Your task to perform on an android device: turn vacation reply on in the gmail app Image 0: 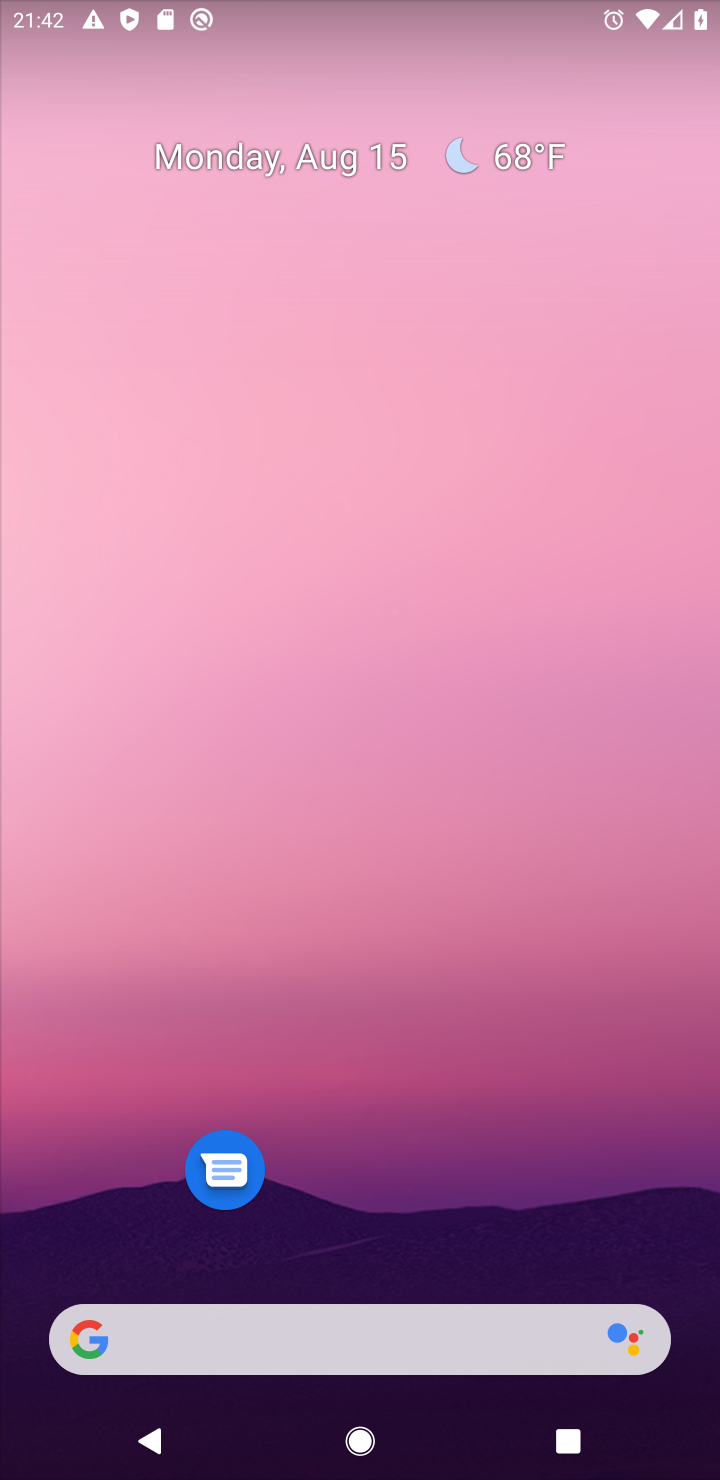
Step 0: drag from (379, 1238) to (437, 158)
Your task to perform on an android device: turn vacation reply on in the gmail app Image 1: 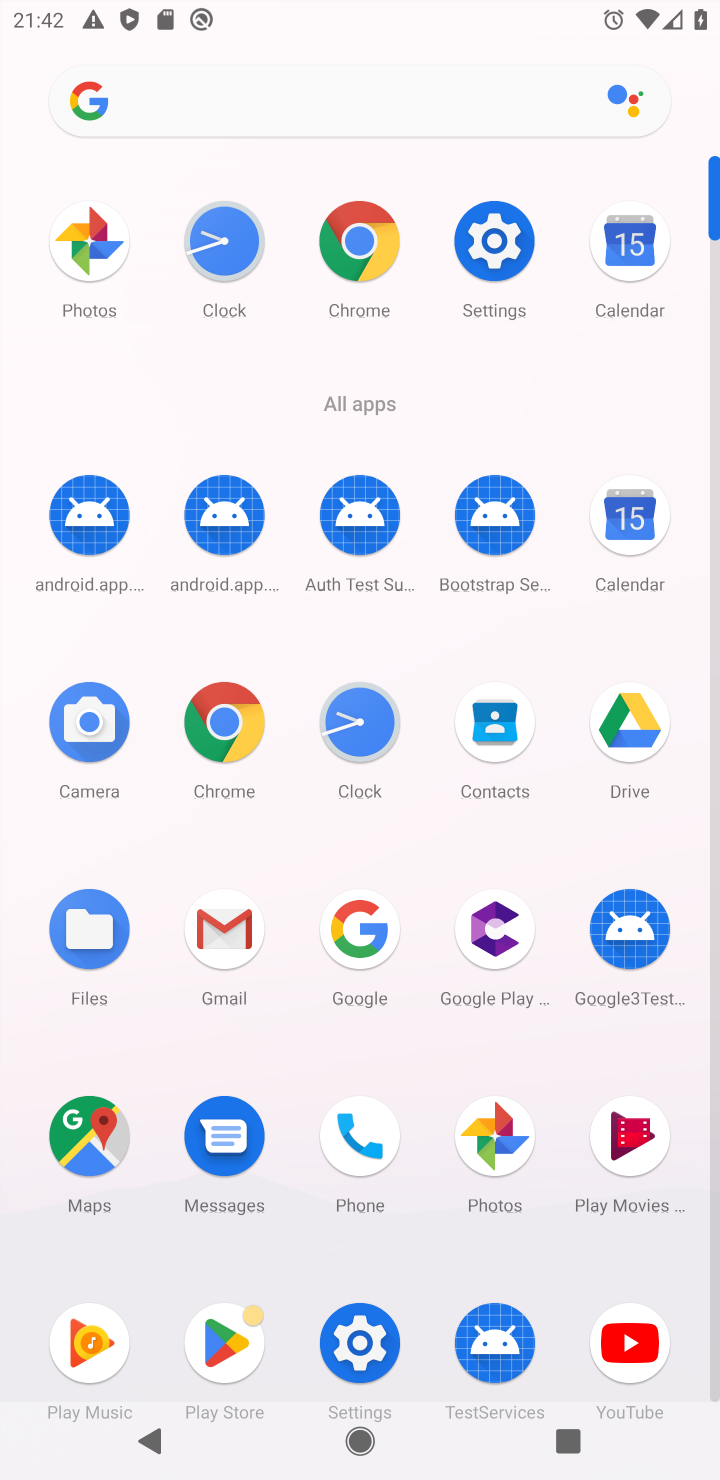
Step 1: click (234, 947)
Your task to perform on an android device: turn vacation reply on in the gmail app Image 2: 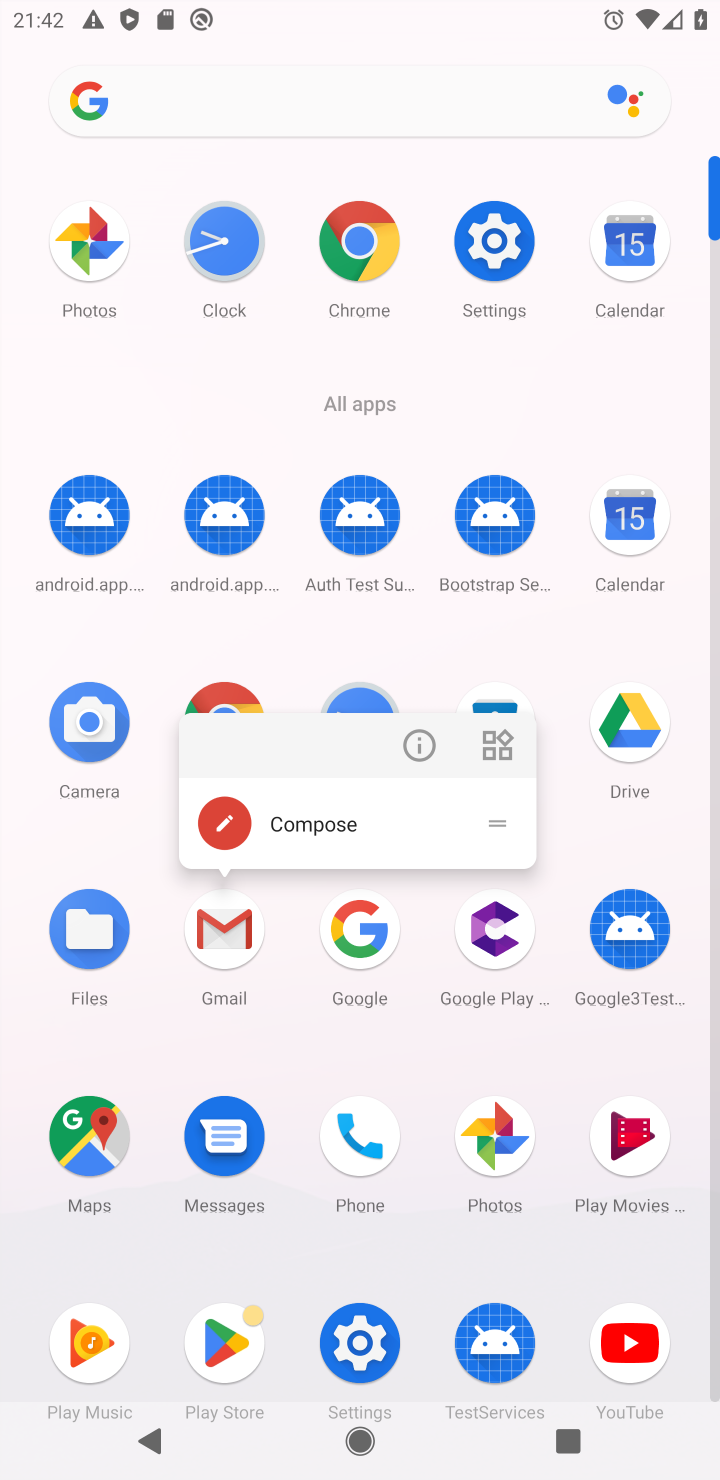
Step 2: click (220, 928)
Your task to perform on an android device: turn vacation reply on in the gmail app Image 3: 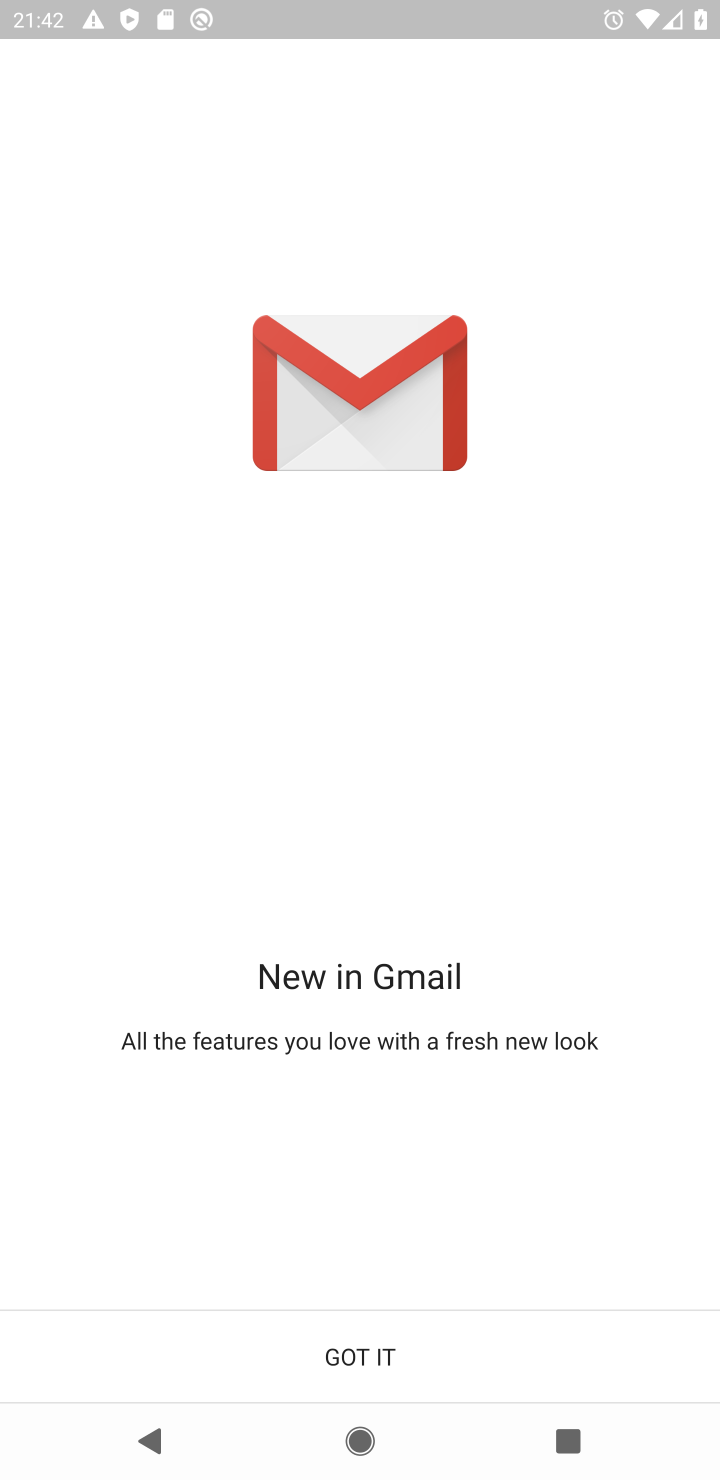
Step 3: click (375, 1362)
Your task to perform on an android device: turn vacation reply on in the gmail app Image 4: 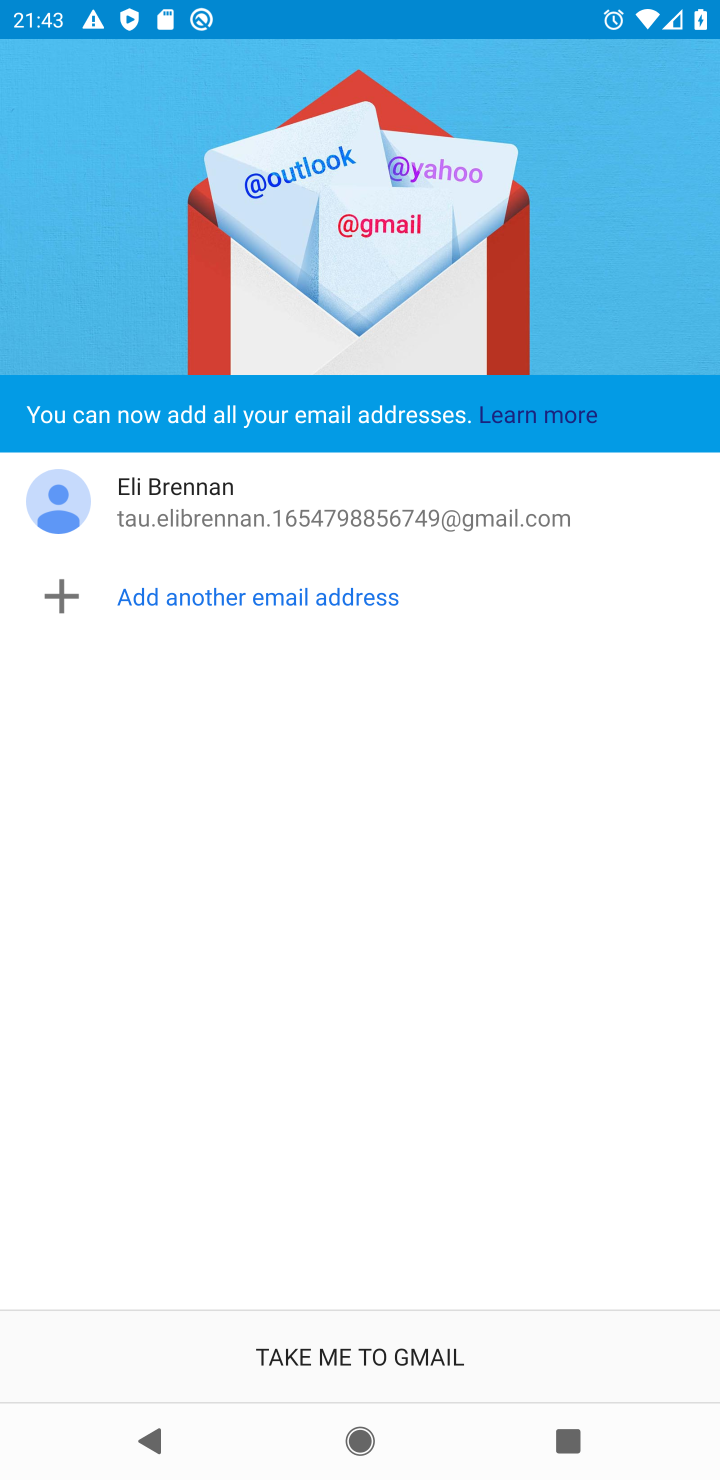
Step 4: click (375, 1360)
Your task to perform on an android device: turn vacation reply on in the gmail app Image 5: 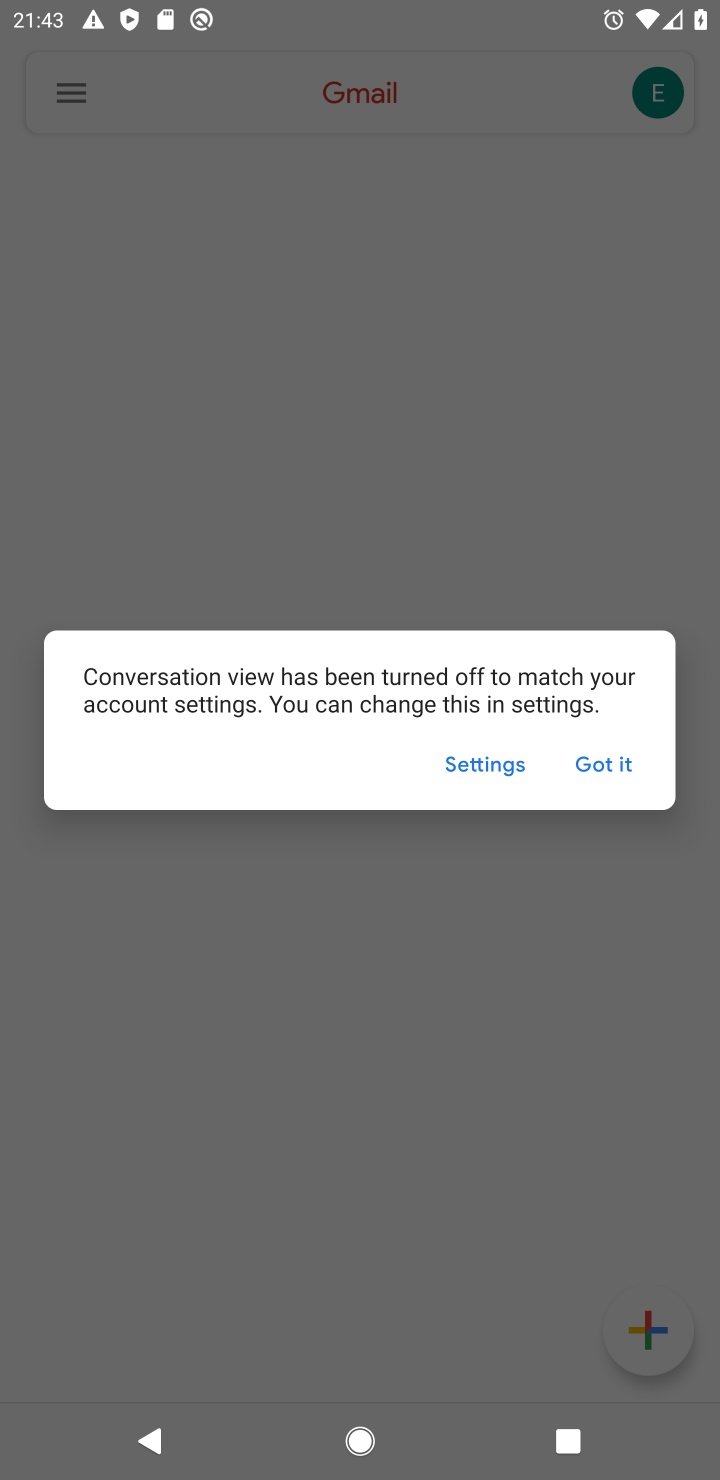
Step 5: click (626, 766)
Your task to perform on an android device: turn vacation reply on in the gmail app Image 6: 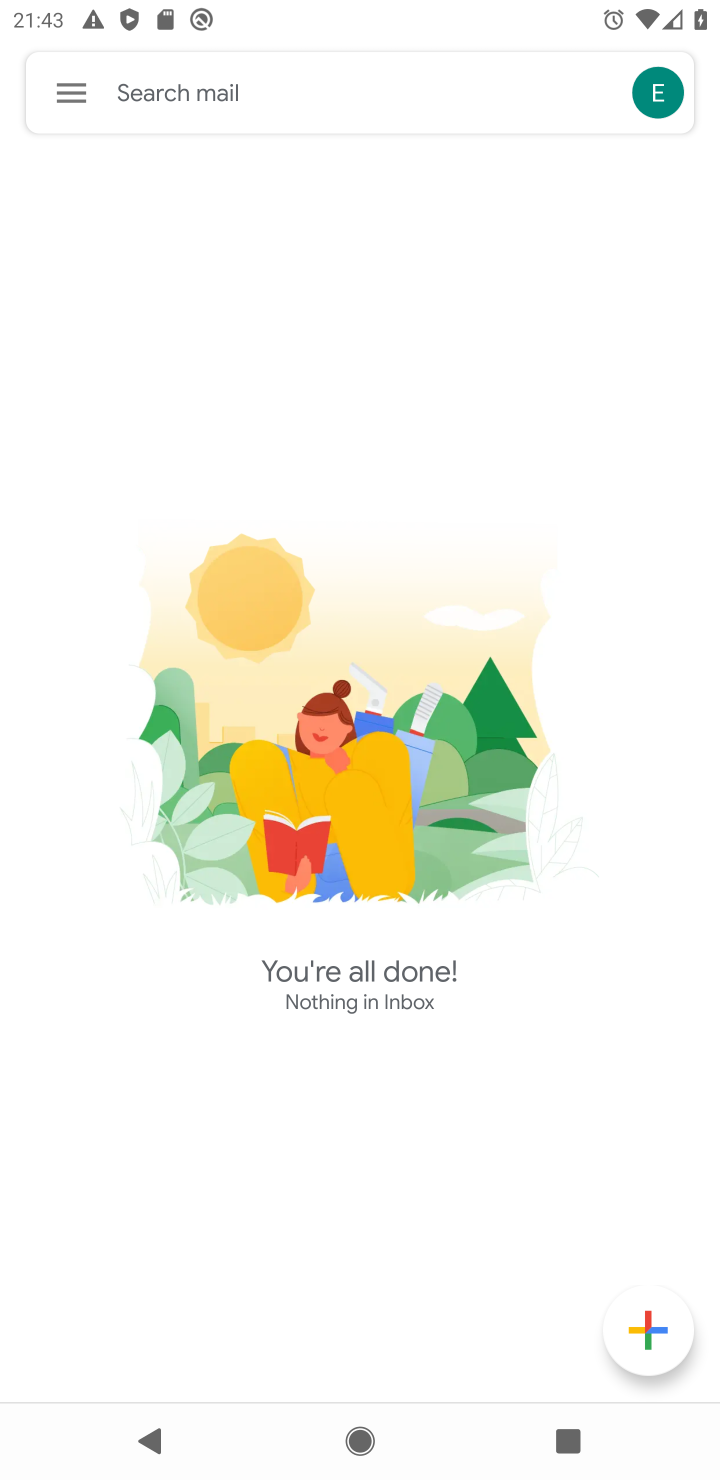
Step 6: click (64, 109)
Your task to perform on an android device: turn vacation reply on in the gmail app Image 7: 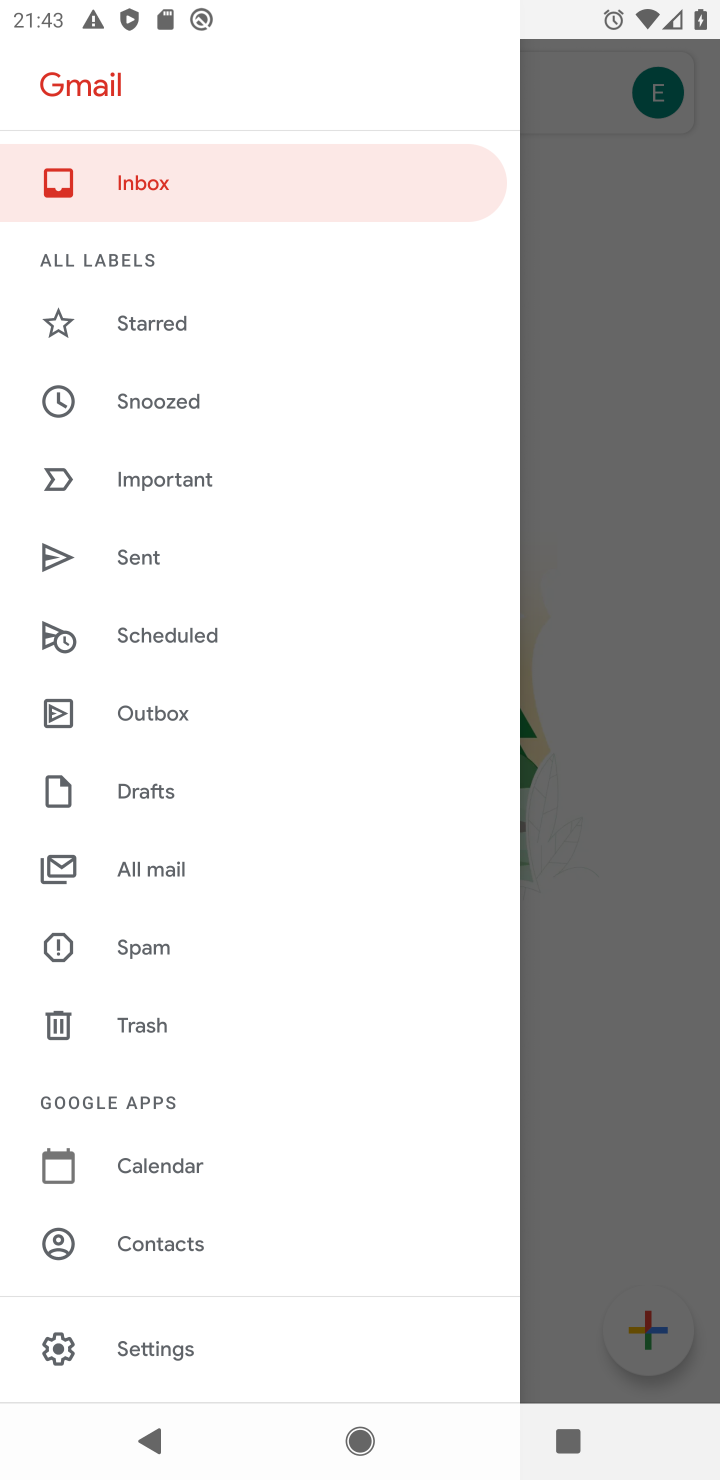
Step 7: drag from (232, 1346) to (395, 362)
Your task to perform on an android device: turn vacation reply on in the gmail app Image 8: 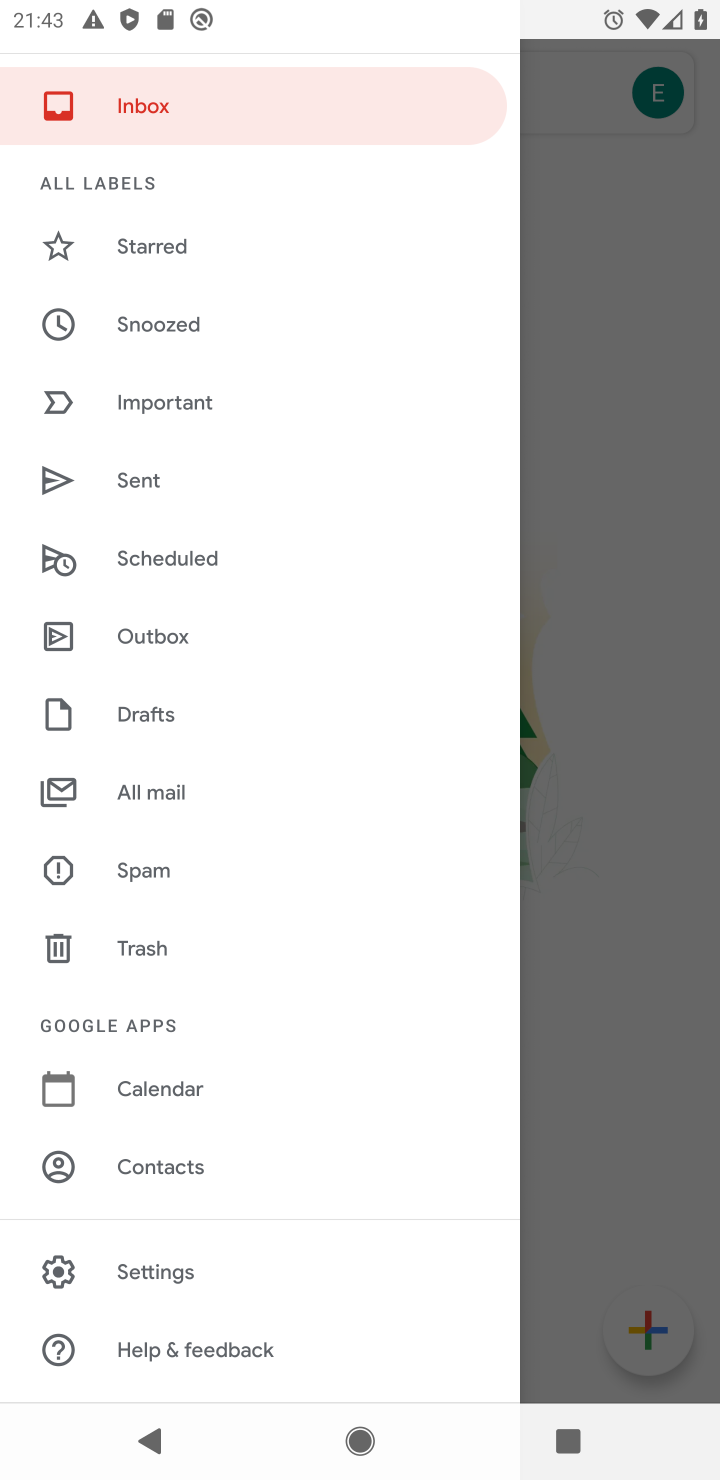
Step 8: click (146, 1276)
Your task to perform on an android device: turn vacation reply on in the gmail app Image 9: 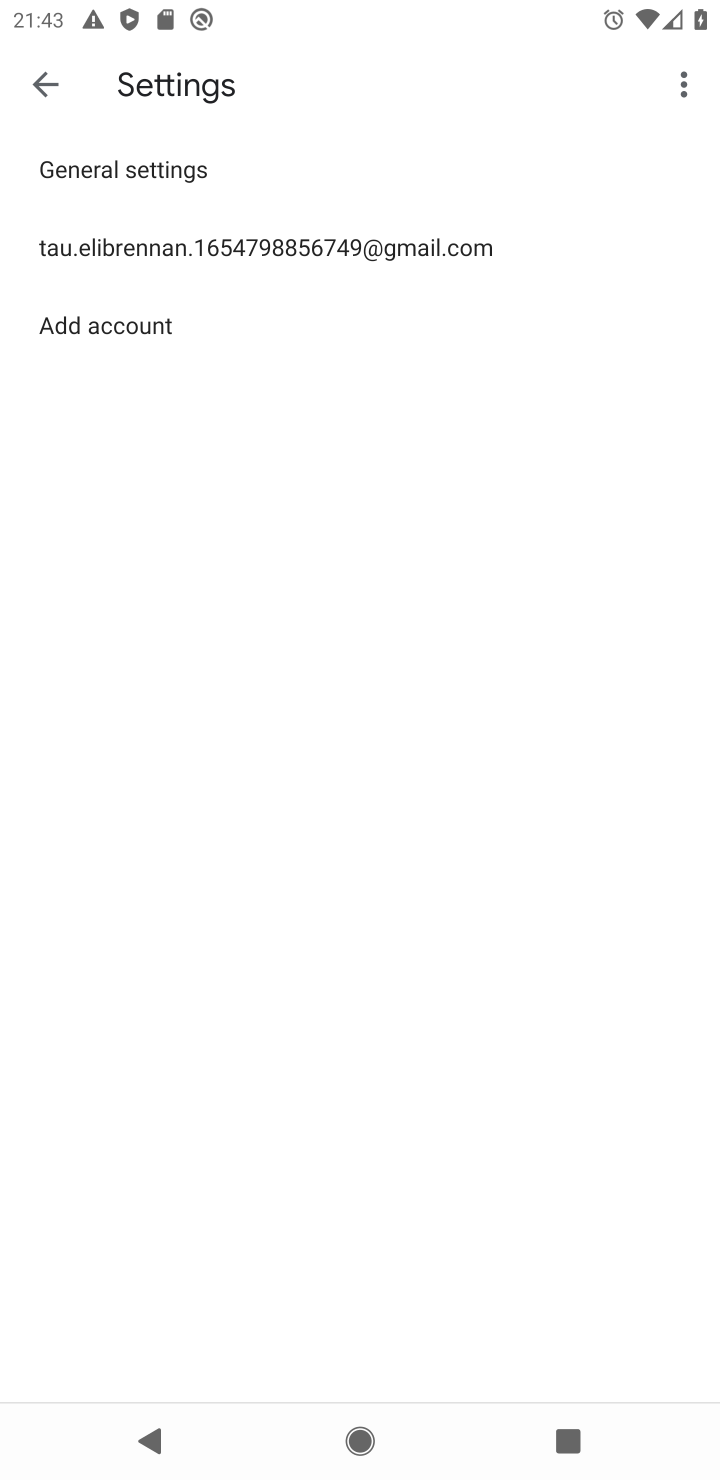
Step 9: click (173, 235)
Your task to perform on an android device: turn vacation reply on in the gmail app Image 10: 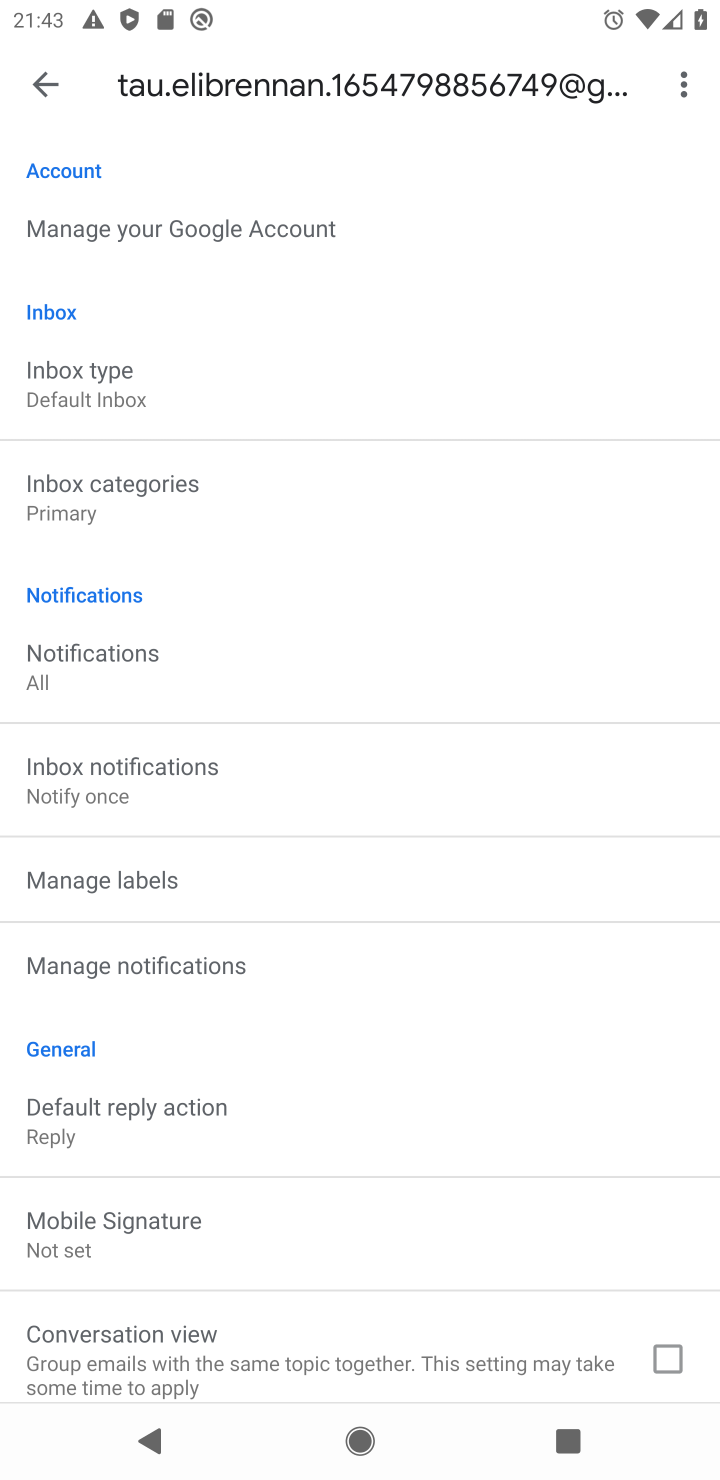
Step 10: drag from (215, 1290) to (386, 190)
Your task to perform on an android device: turn vacation reply on in the gmail app Image 11: 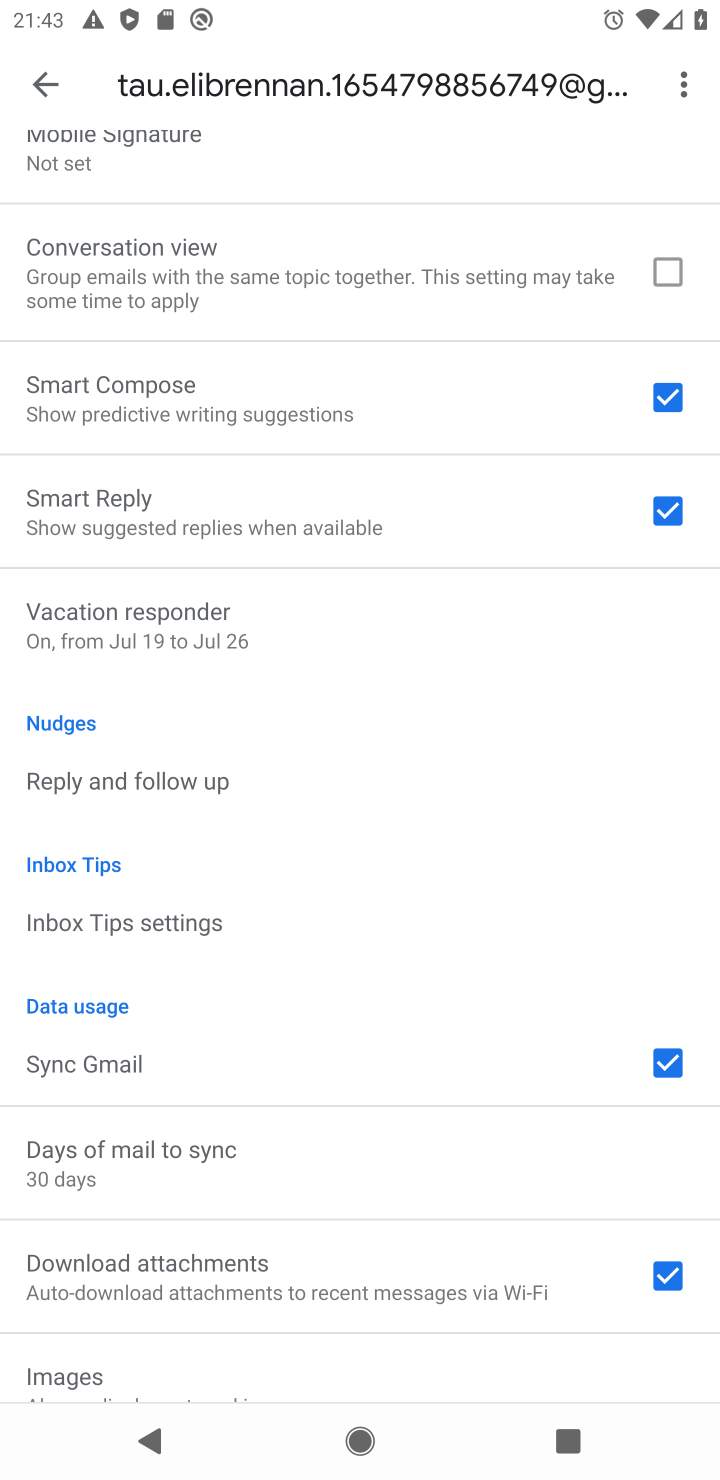
Step 11: drag from (262, 1280) to (386, 353)
Your task to perform on an android device: turn vacation reply on in the gmail app Image 12: 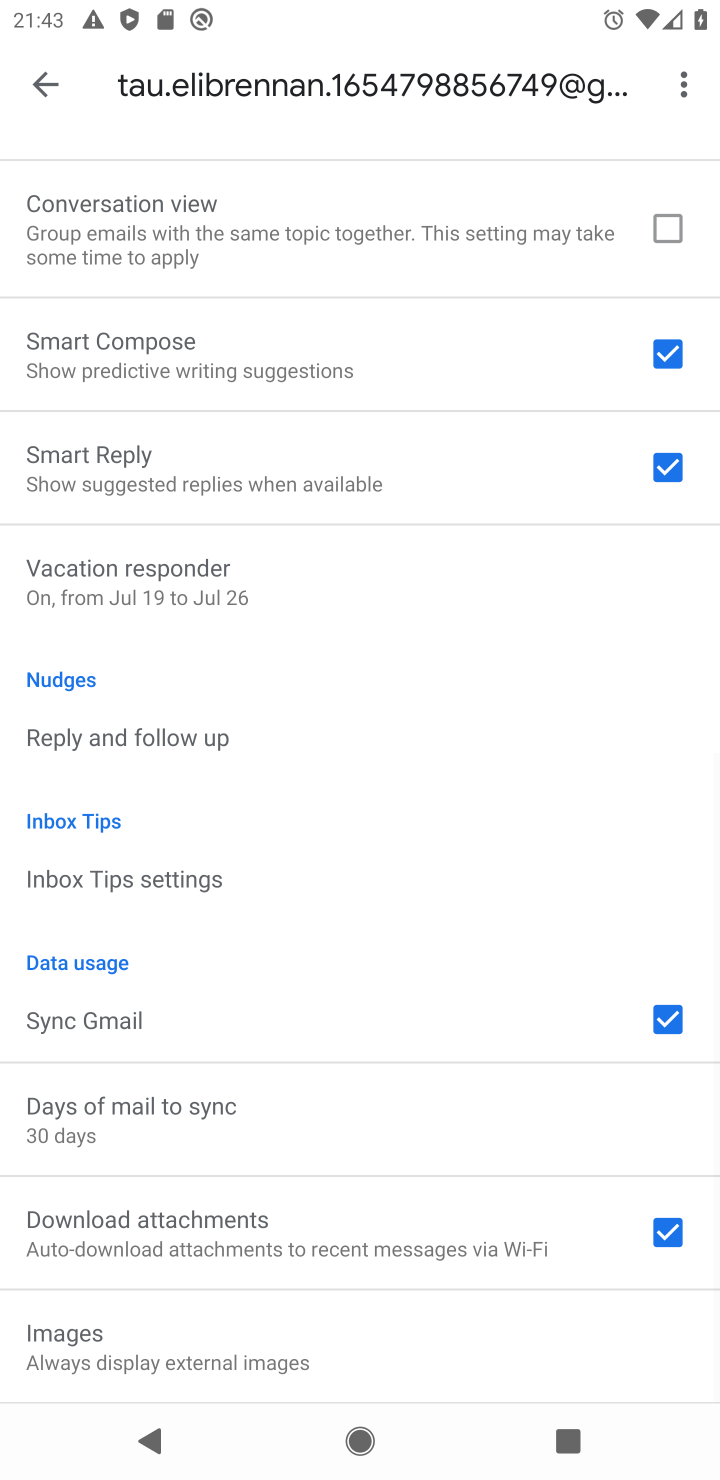
Step 12: drag from (222, 1388) to (264, 401)
Your task to perform on an android device: turn vacation reply on in the gmail app Image 13: 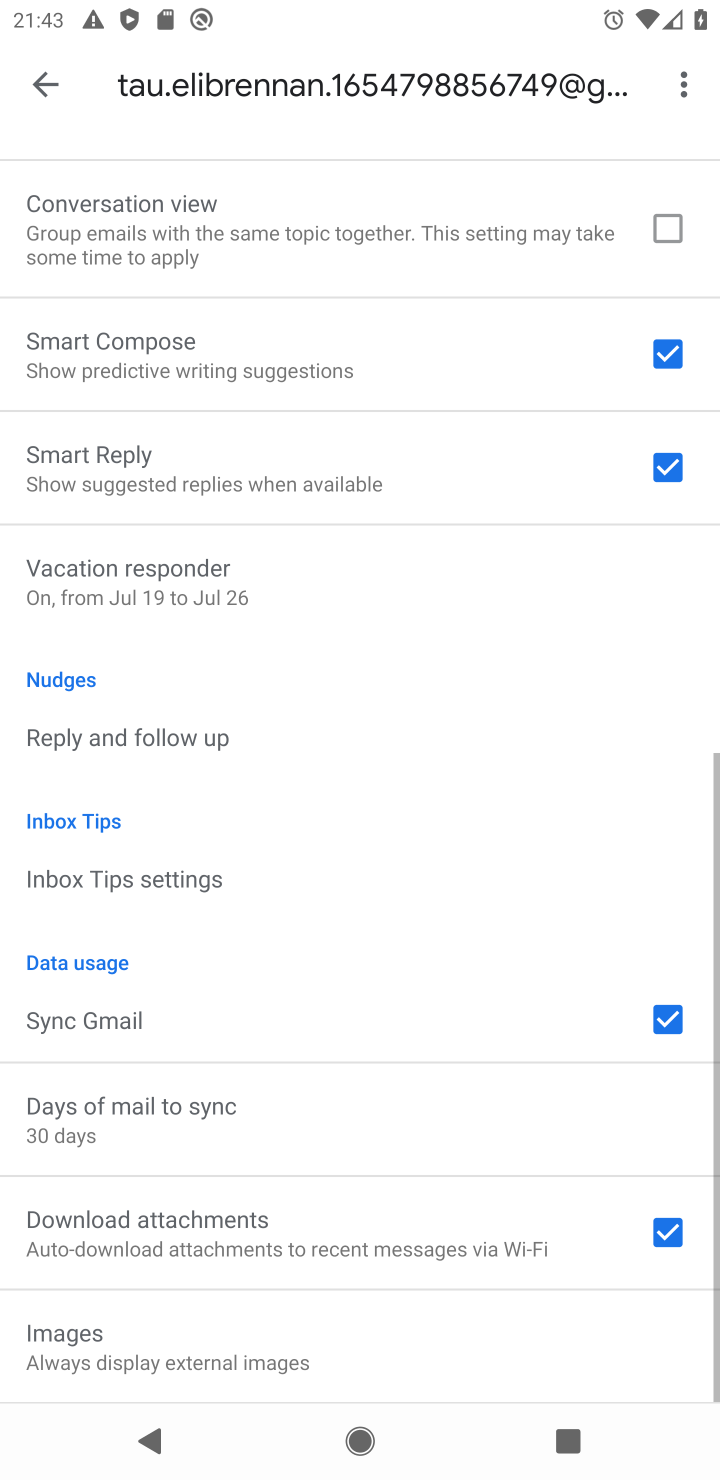
Step 13: click (114, 607)
Your task to perform on an android device: turn vacation reply on in the gmail app Image 14: 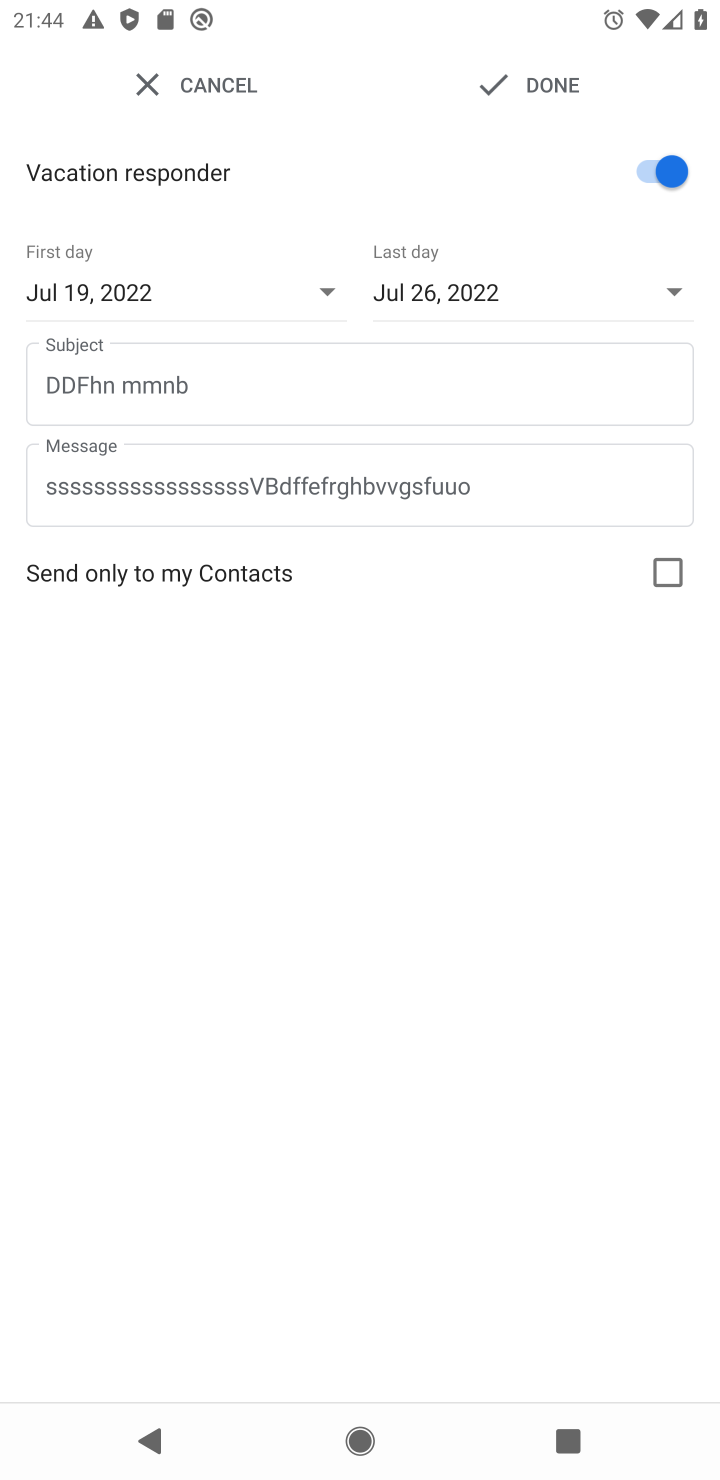
Step 14: task complete